Your task to perform on an android device: What's the weather going to be tomorrow? Image 0: 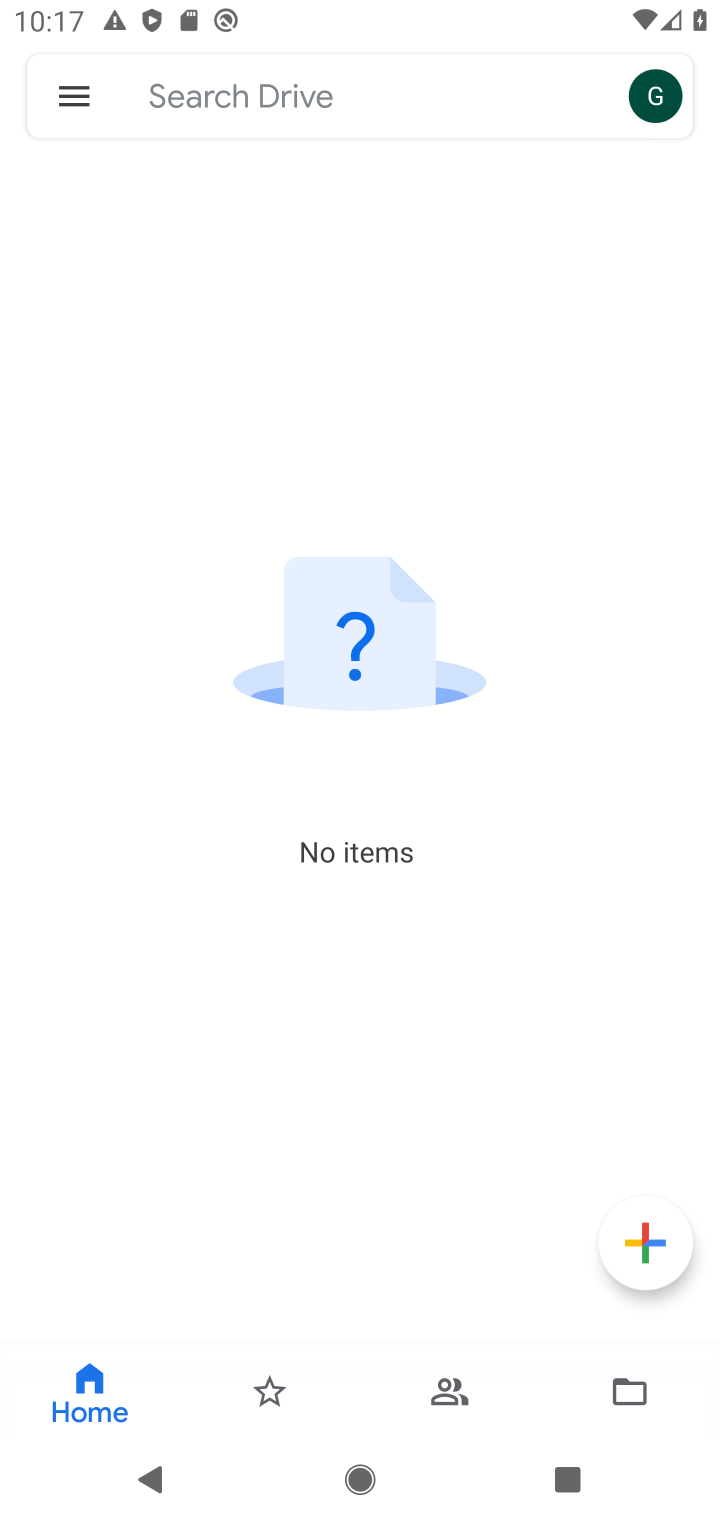
Step 0: drag from (352, 386) to (332, 105)
Your task to perform on an android device: What's the weather going to be tomorrow? Image 1: 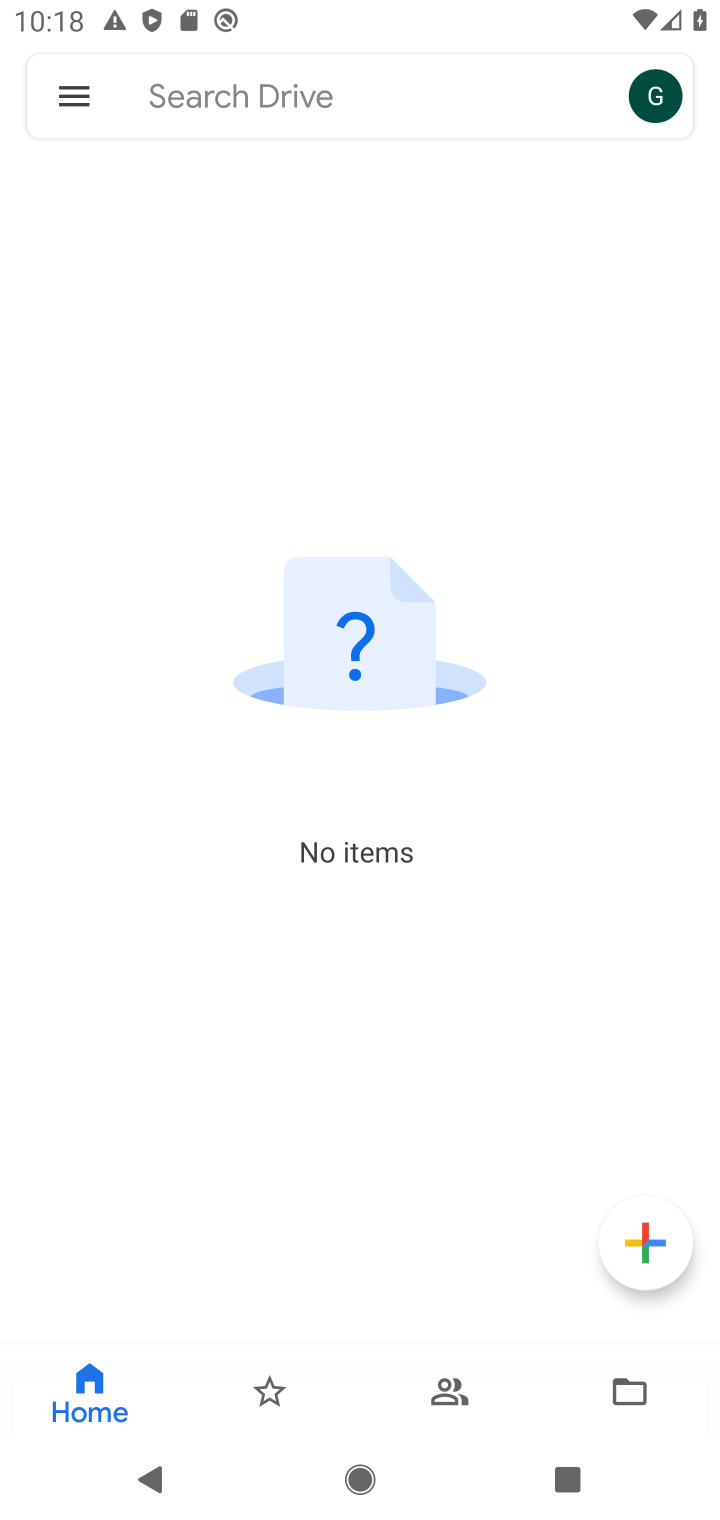
Step 1: press back button
Your task to perform on an android device: What's the weather going to be tomorrow? Image 2: 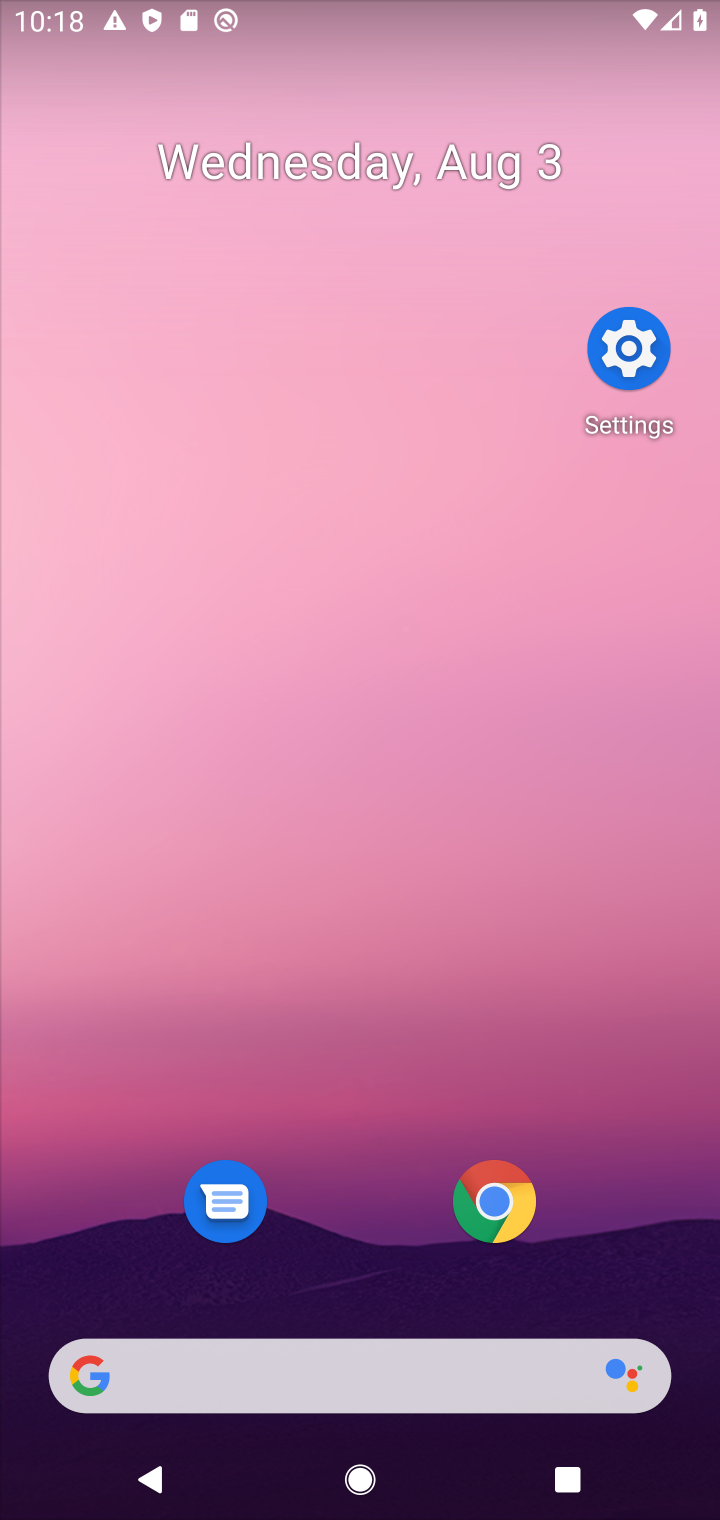
Step 2: drag from (439, 1090) to (213, 130)
Your task to perform on an android device: What's the weather going to be tomorrow? Image 3: 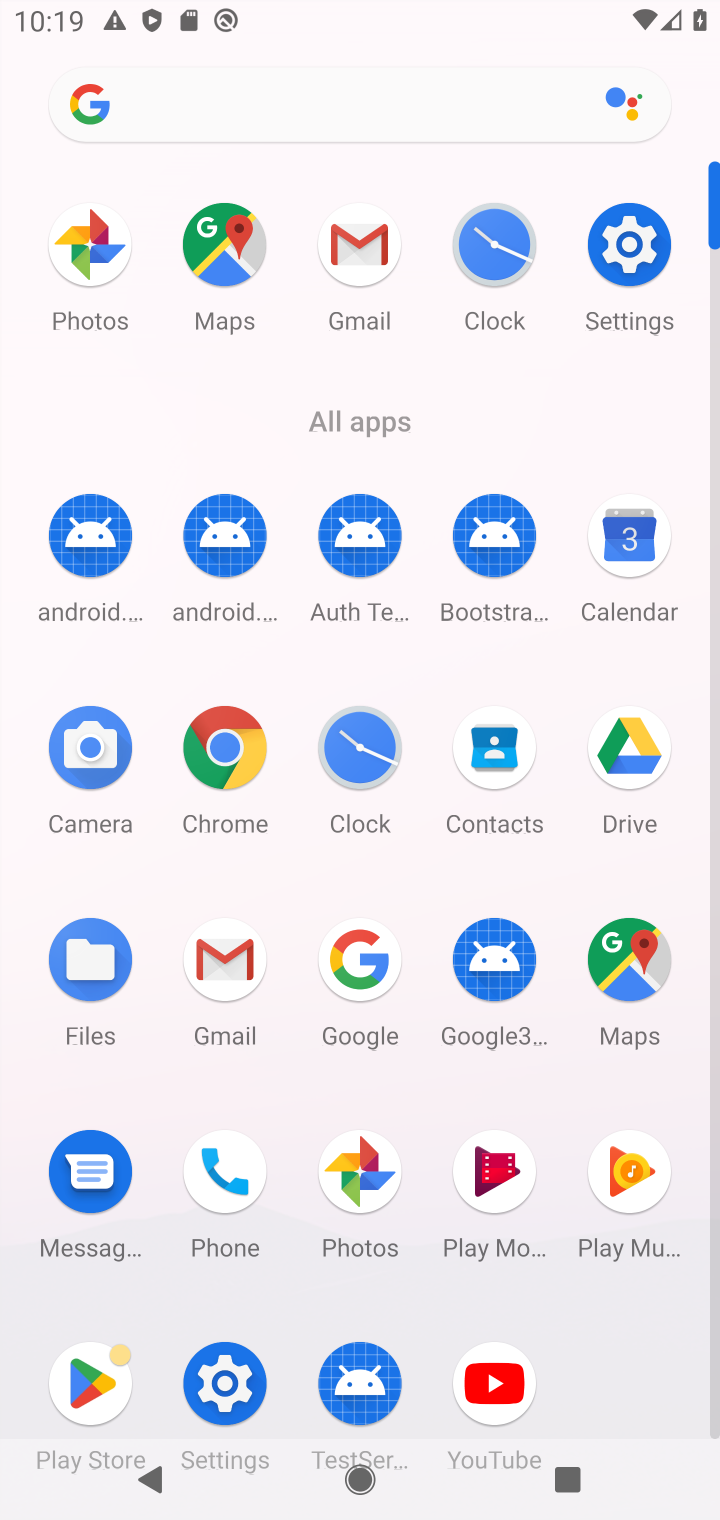
Step 3: click (229, 756)
Your task to perform on an android device: What's the weather going to be tomorrow? Image 4: 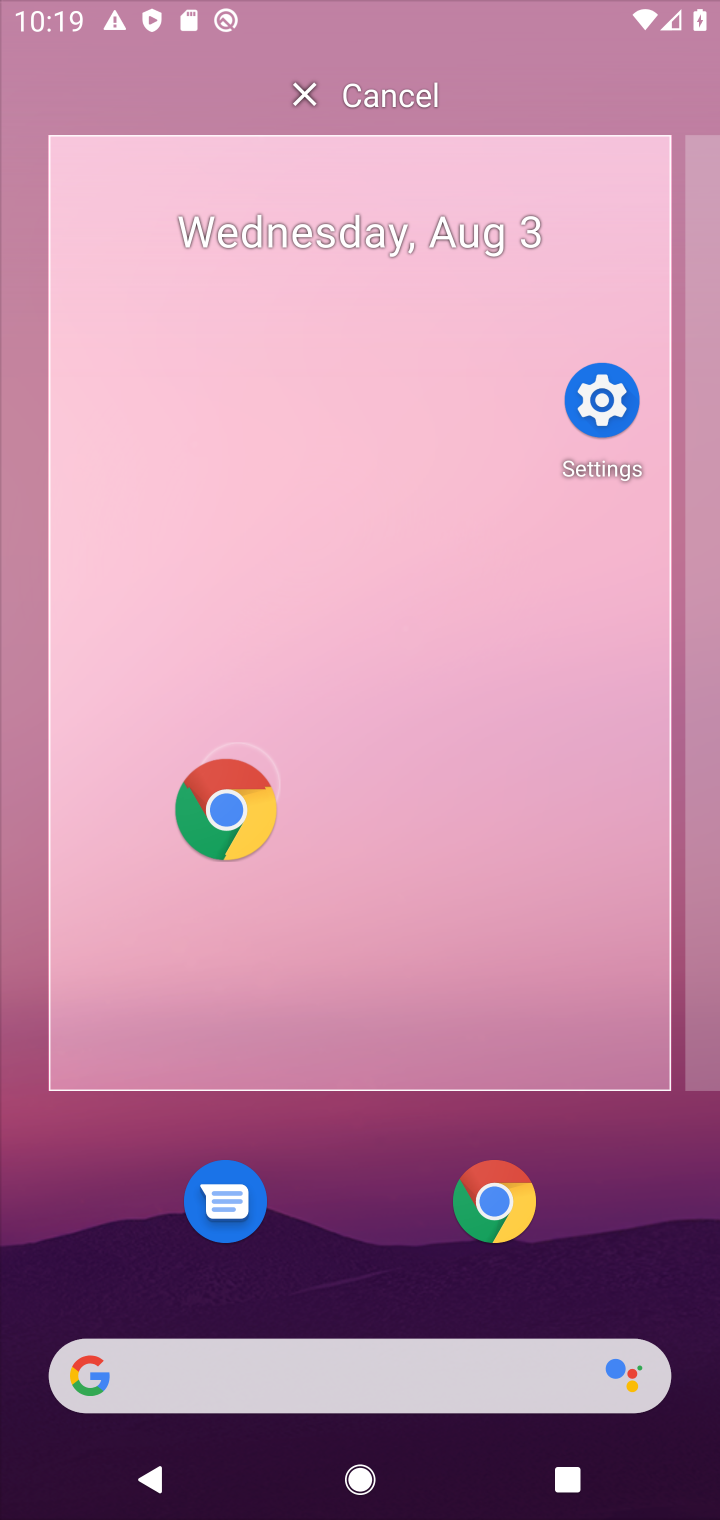
Step 4: drag from (480, 1208) to (314, 214)
Your task to perform on an android device: What's the weather going to be tomorrow? Image 5: 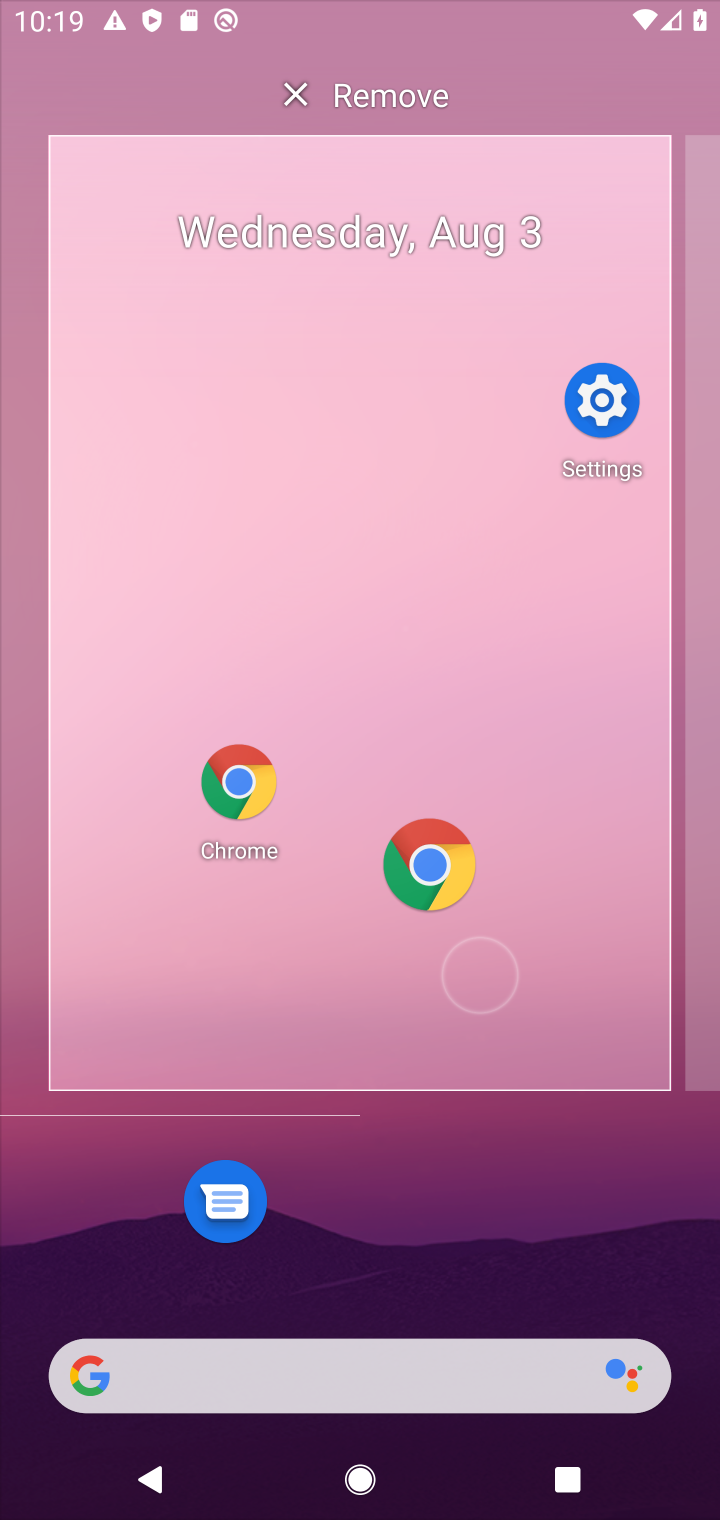
Step 5: drag from (376, 956) to (349, 570)
Your task to perform on an android device: What's the weather going to be tomorrow? Image 6: 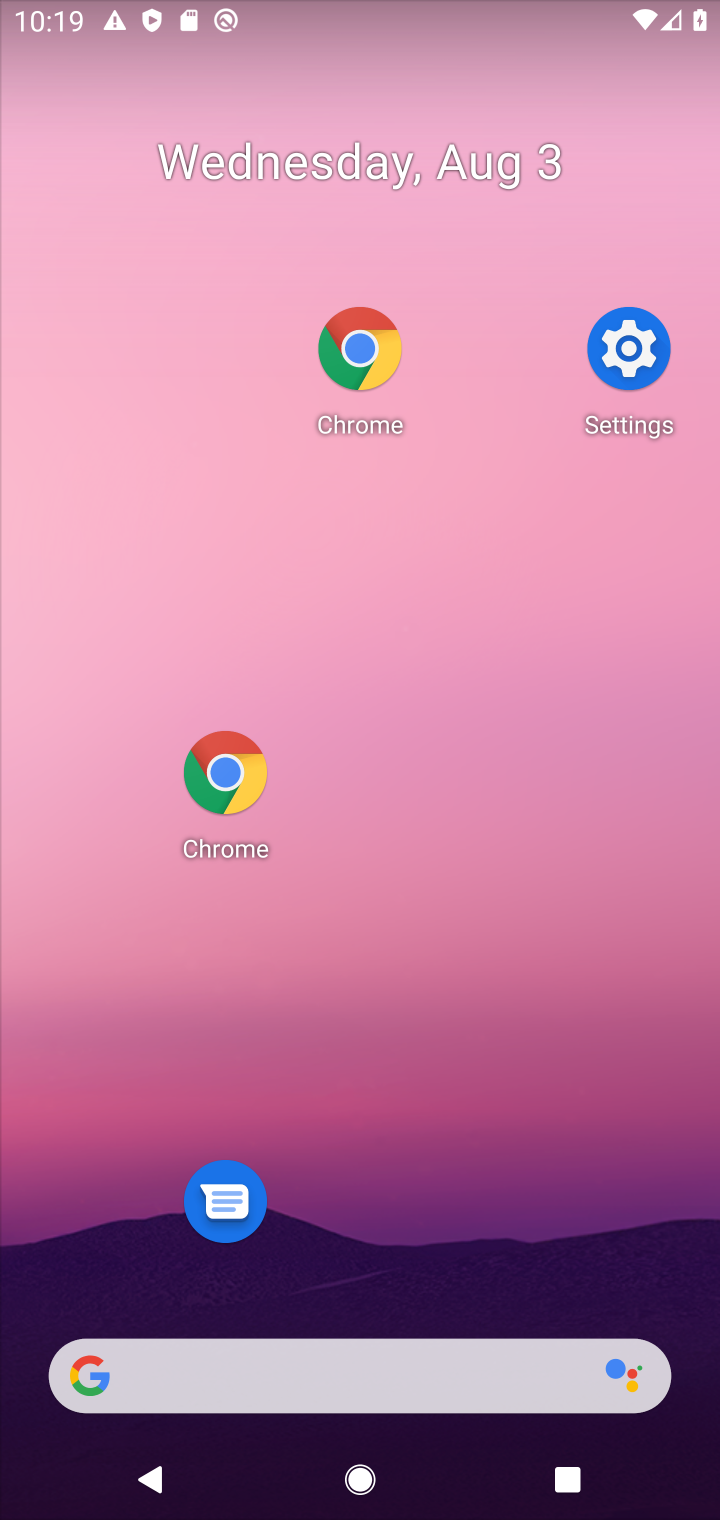
Step 6: click (229, 805)
Your task to perform on an android device: What's the weather going to be tomorrow? Image 7: 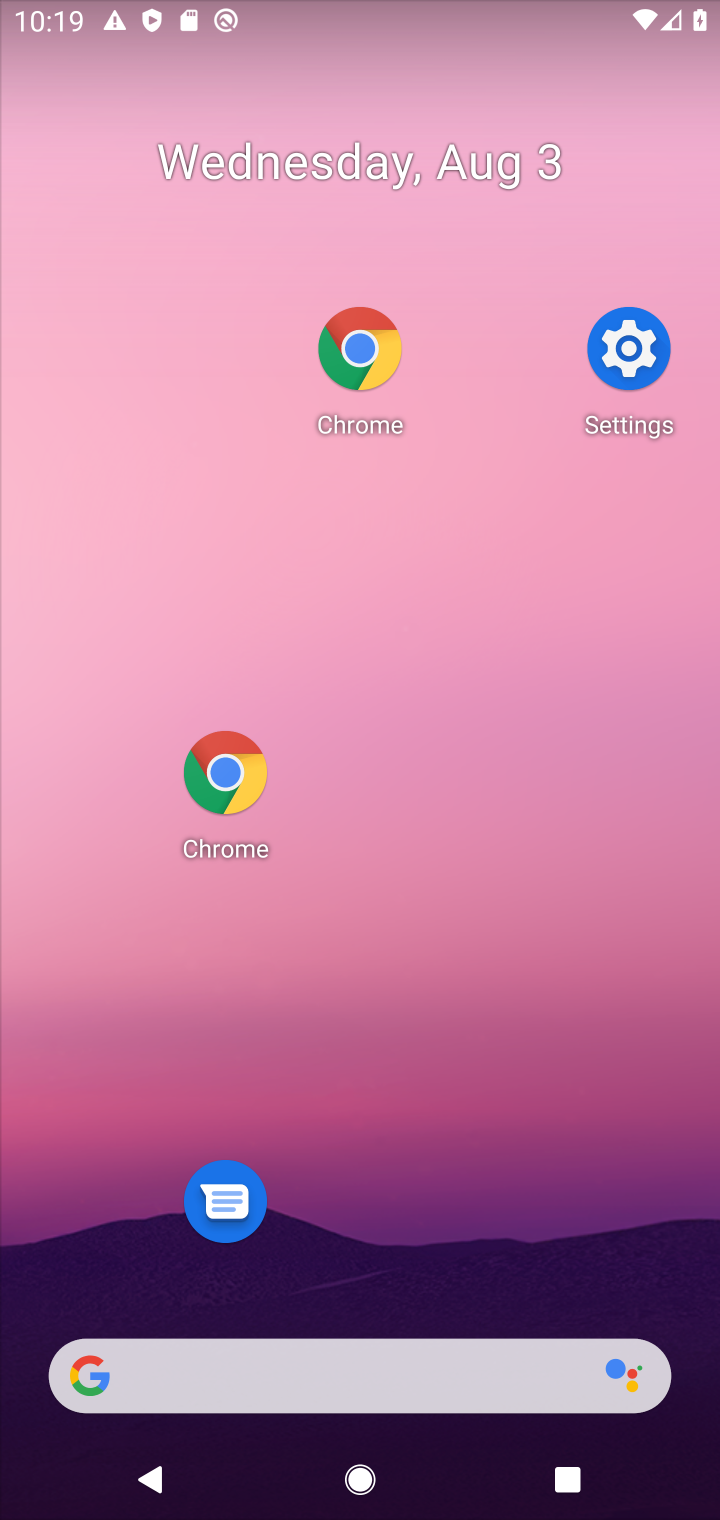
Step 7: drag from (317, 1251) to (261, 423)
Your task to perform on an android device: What's the weather going to be tomorrow? Image 8: 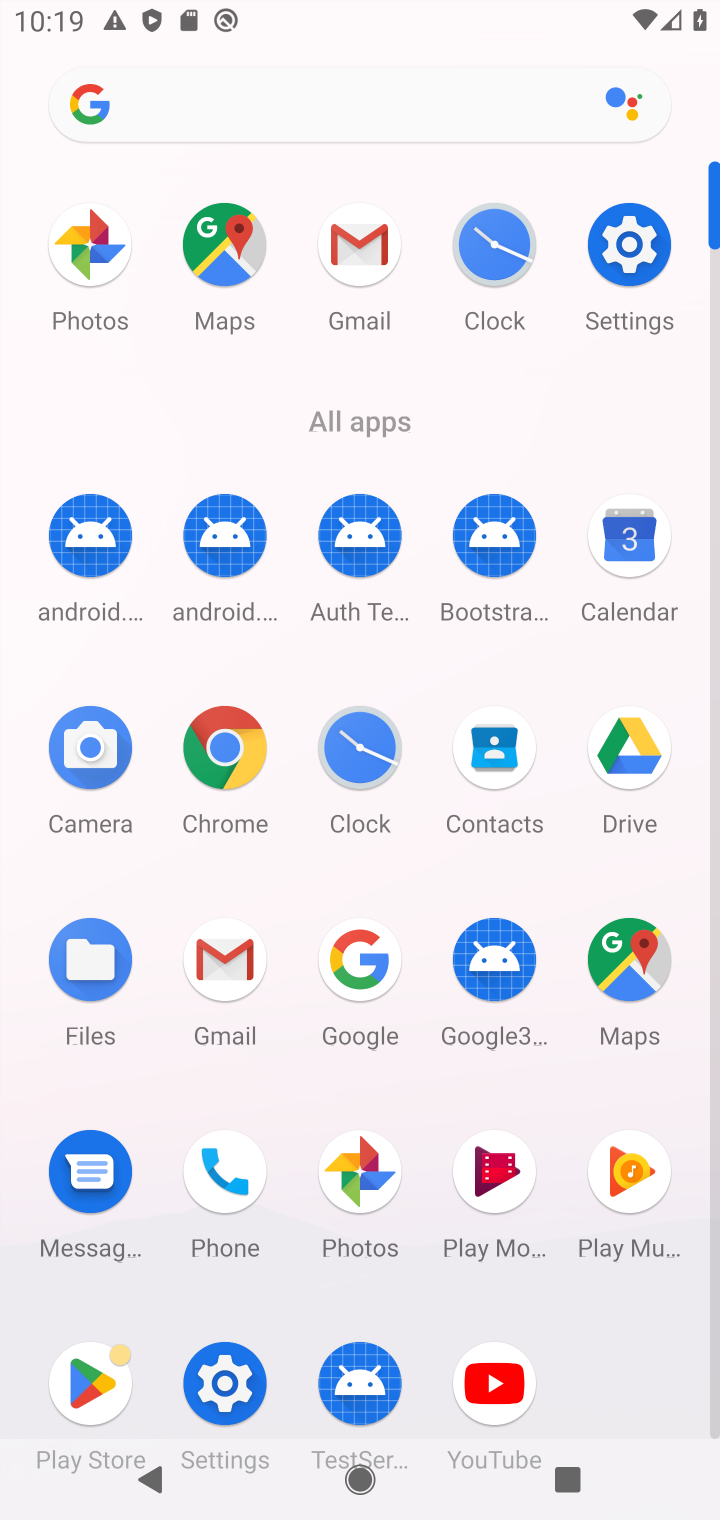
Step 8: click (224, 727)
Your task to perform on an android device: What's the weather going to be tomorrow? Image 9: 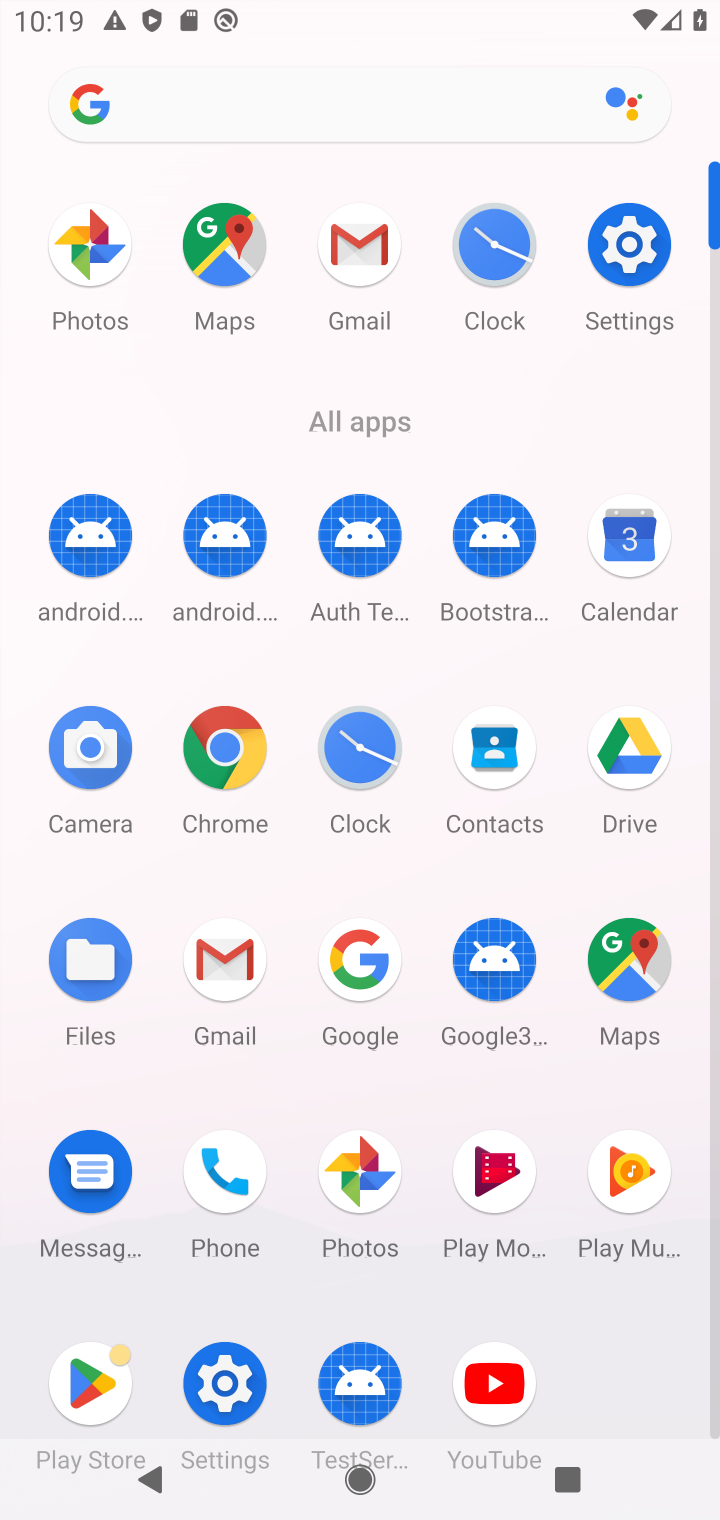
Step 9: click (224, 727)
Your task to perform on an android device: What's the weather going to be tomorrow? Image 10: 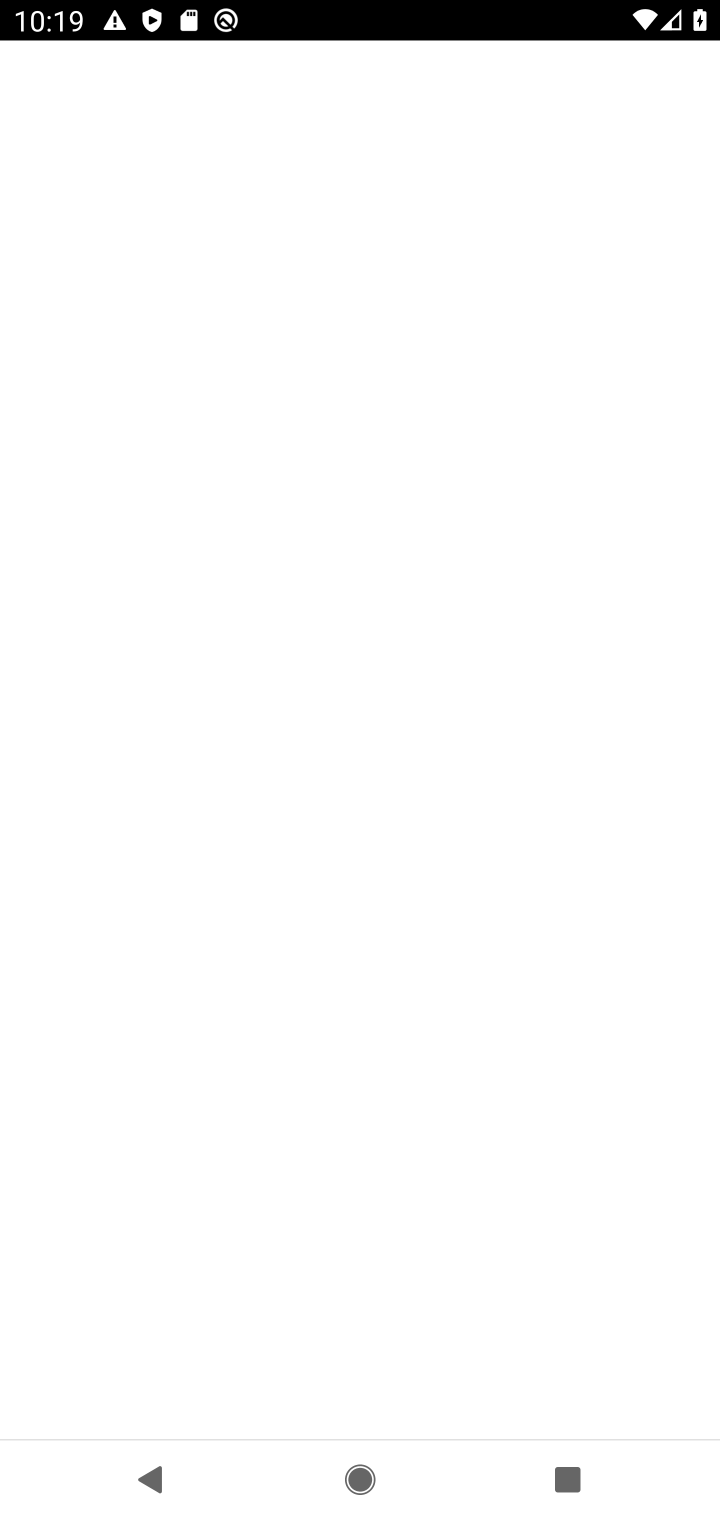
Step 10: click (182, 761)
Your task to perform on an android device: What's the weather going to be tomorrow? Image 11: 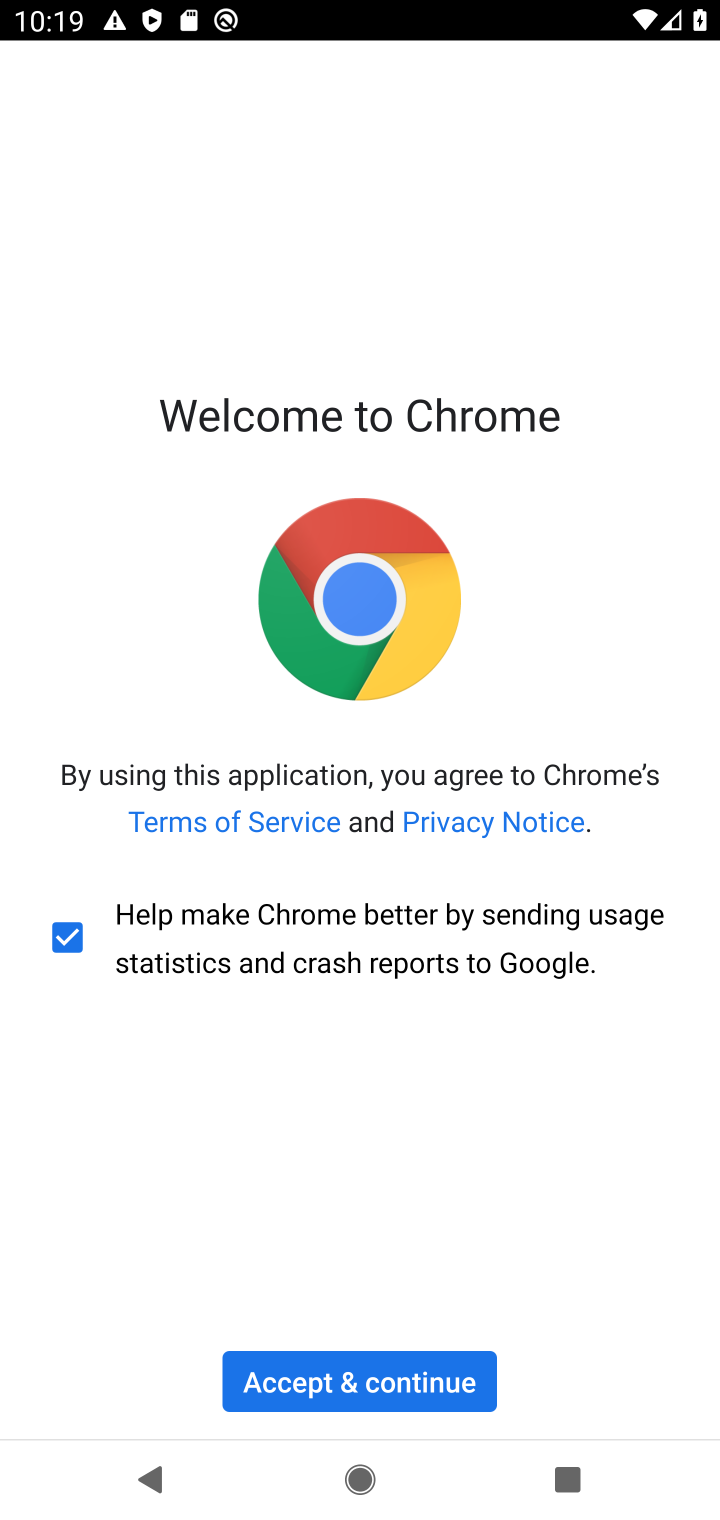
Step 11: click (372, 1357)
Your task to perform on an android device: What's the weather going to be tomorrow? Image 12: 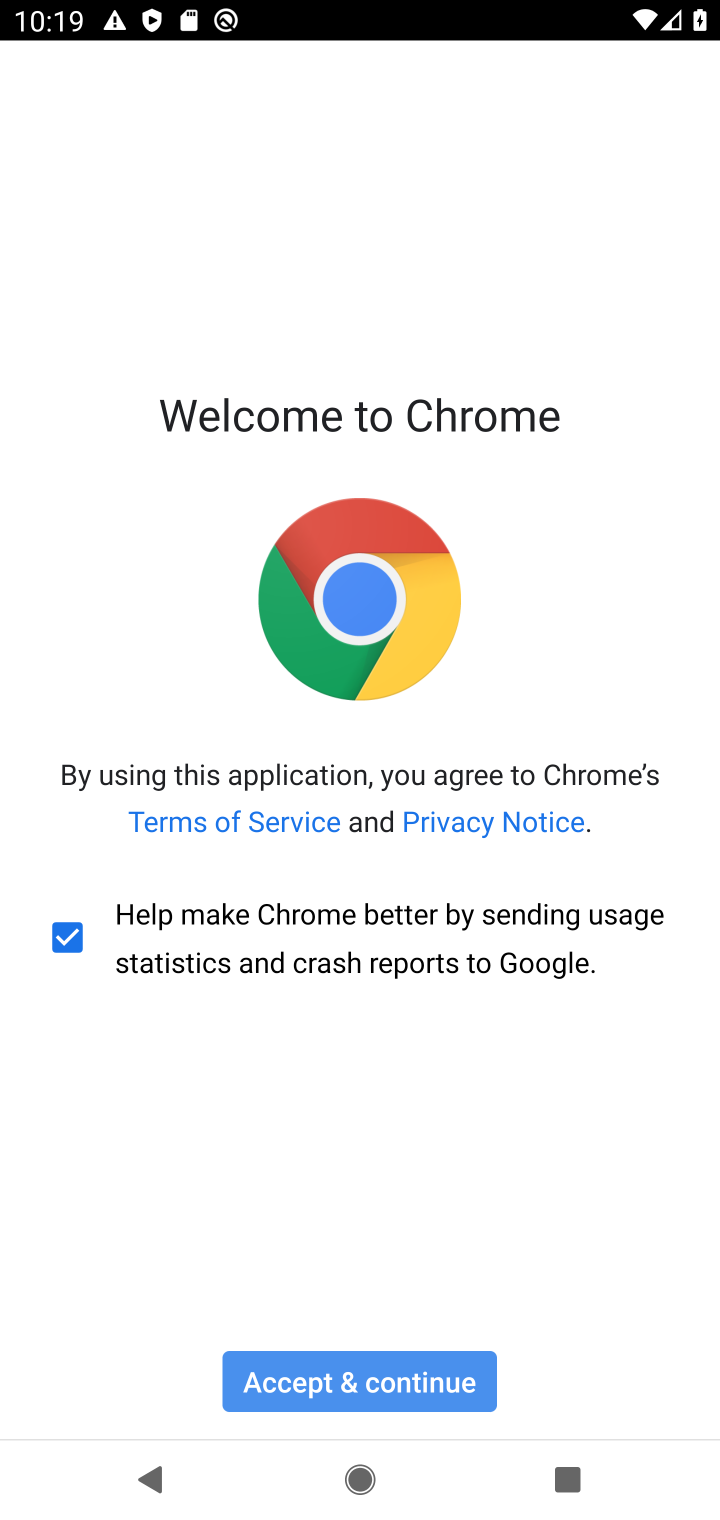
Step 12: click (394, 1366)
Your task to perform on an android device: What's the weather going to be tomorrow? Image 13: 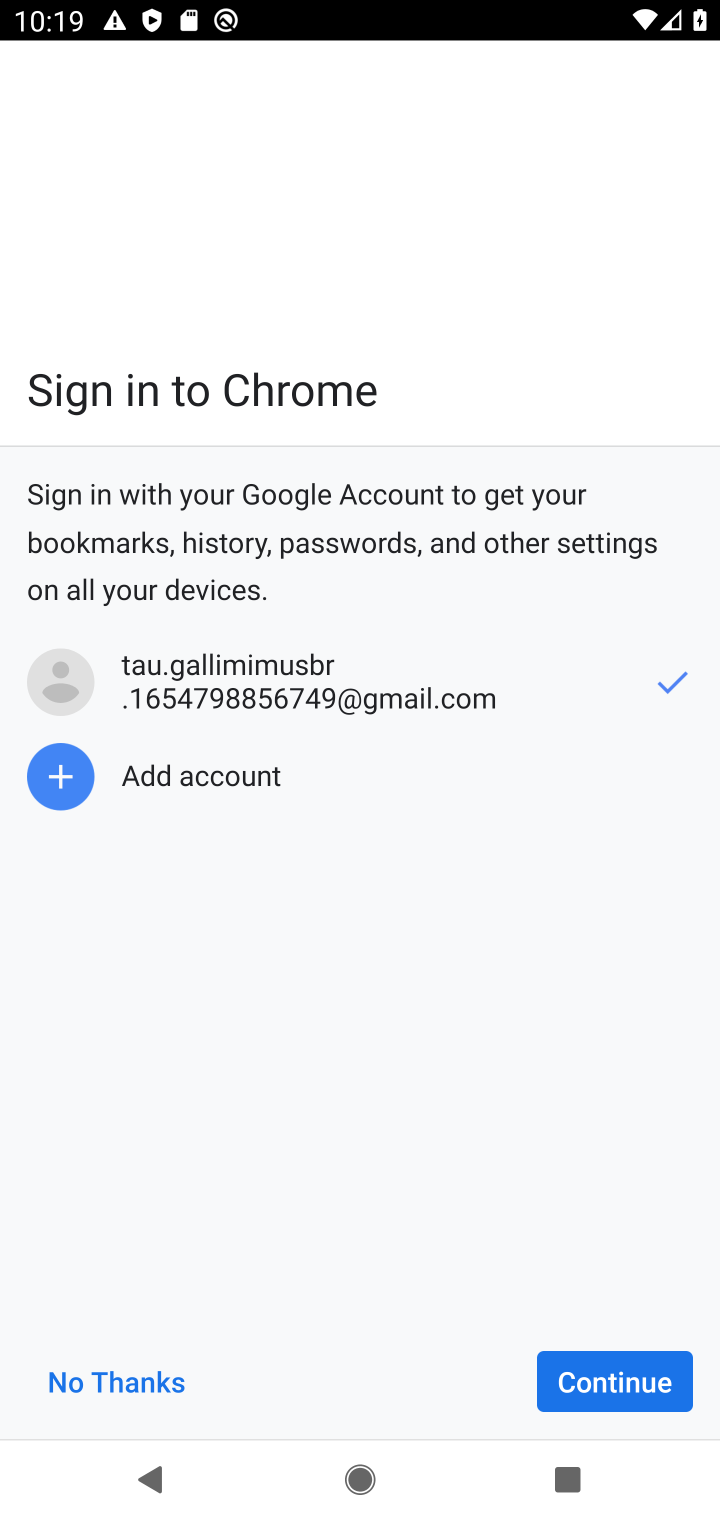
Step 13: click (435, 1399)
Your task to perform on an android device: What's the weather going to be tomorrow? Image 14: 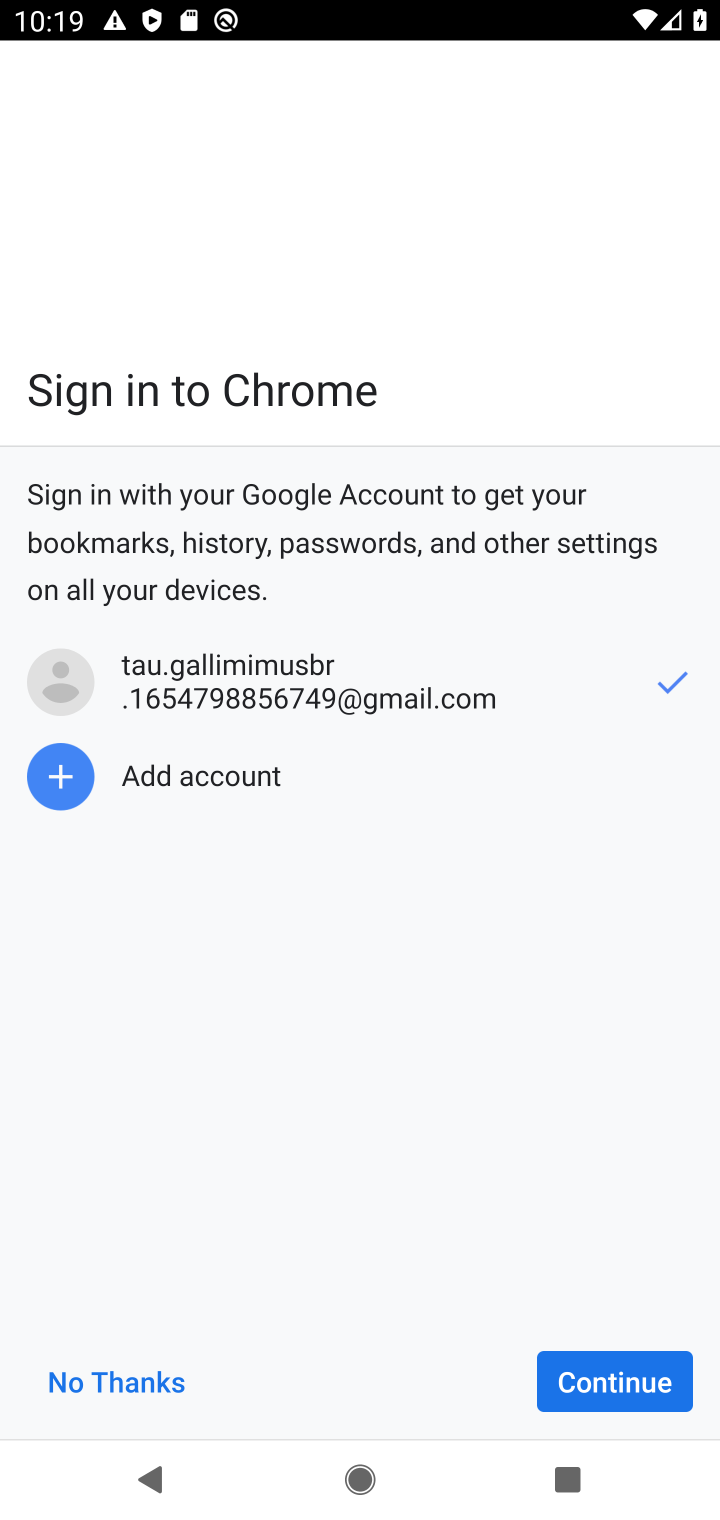
Step 14: click (439, 1373)
Your task to perform on an android device: What's the weather going to be tomorrow? Image 15: 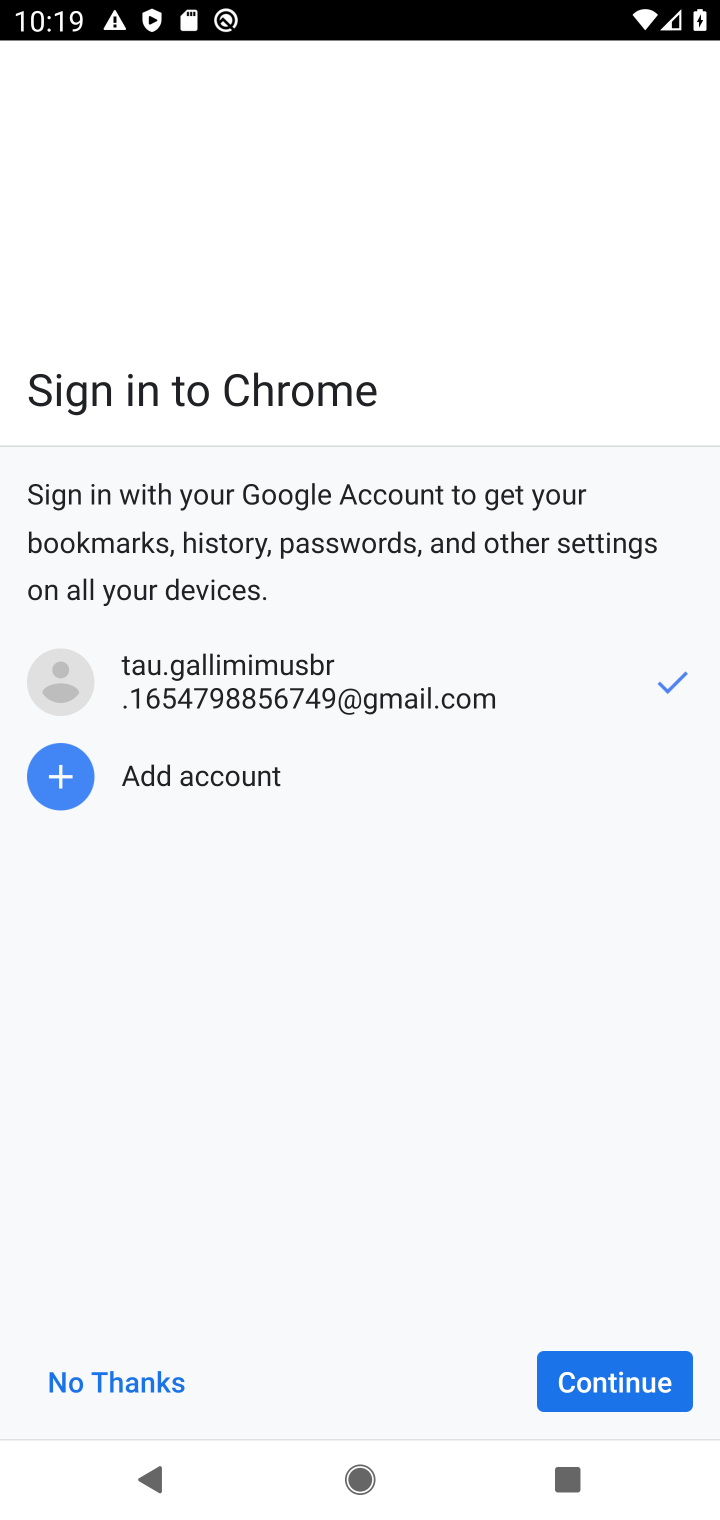
Step 15: click (443, 1356)
Your task to perform on an android device: What's the weather going to be tomorrow? Image 16: 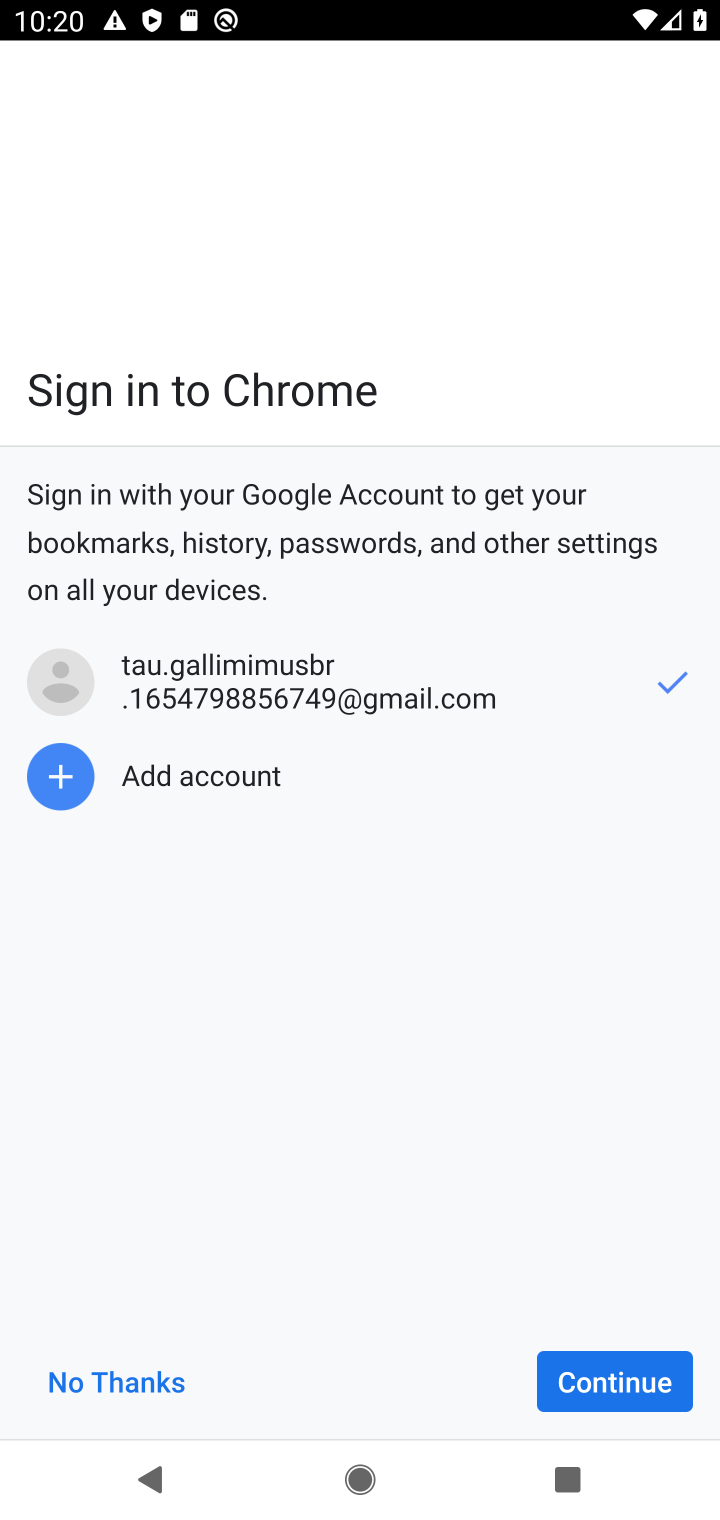
Step 16: click (121, 1379)
Your task to perform on an android device: What's the weather going to be tomorrow? Image 17: 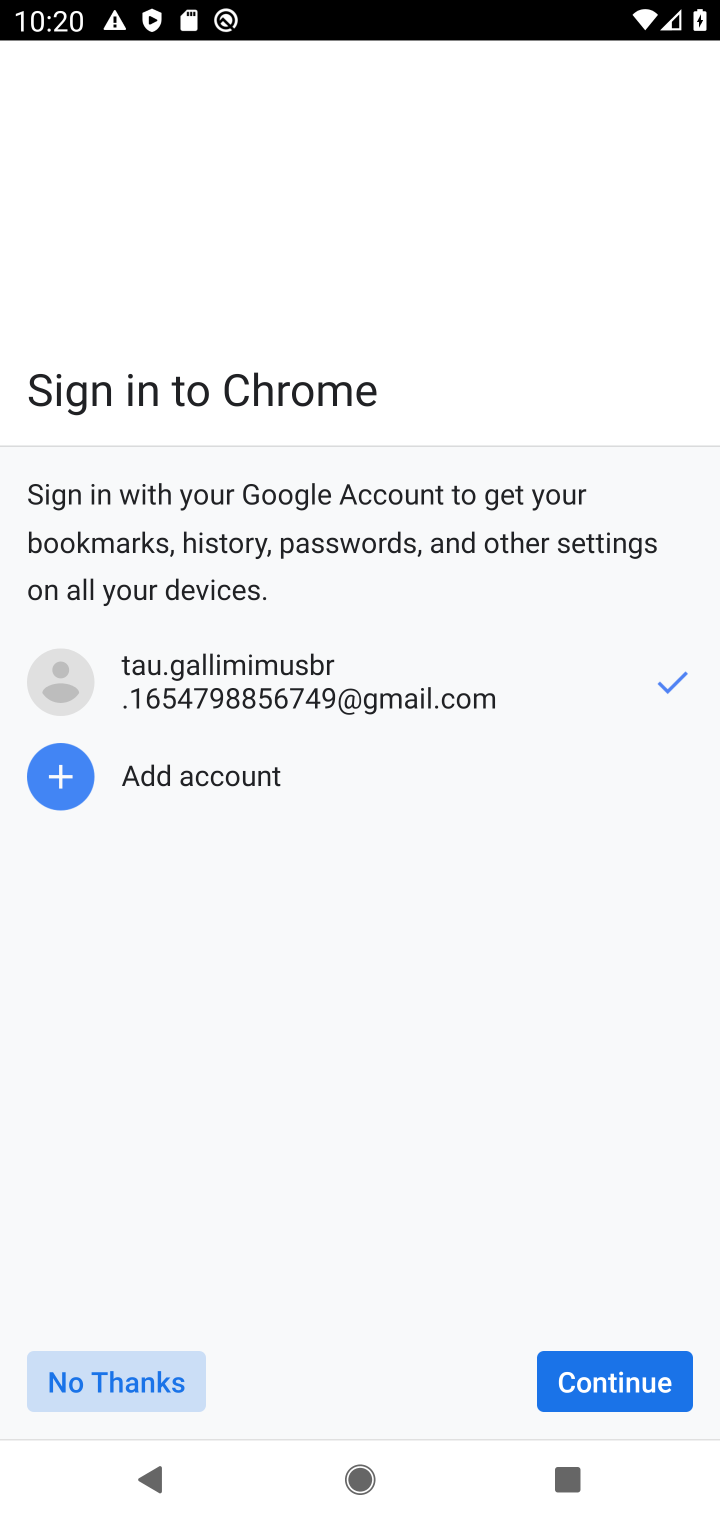
Step 17: click (125, 1379)
Your task to perform on an android device: What's the weather going to be tomorrow? Image 18: 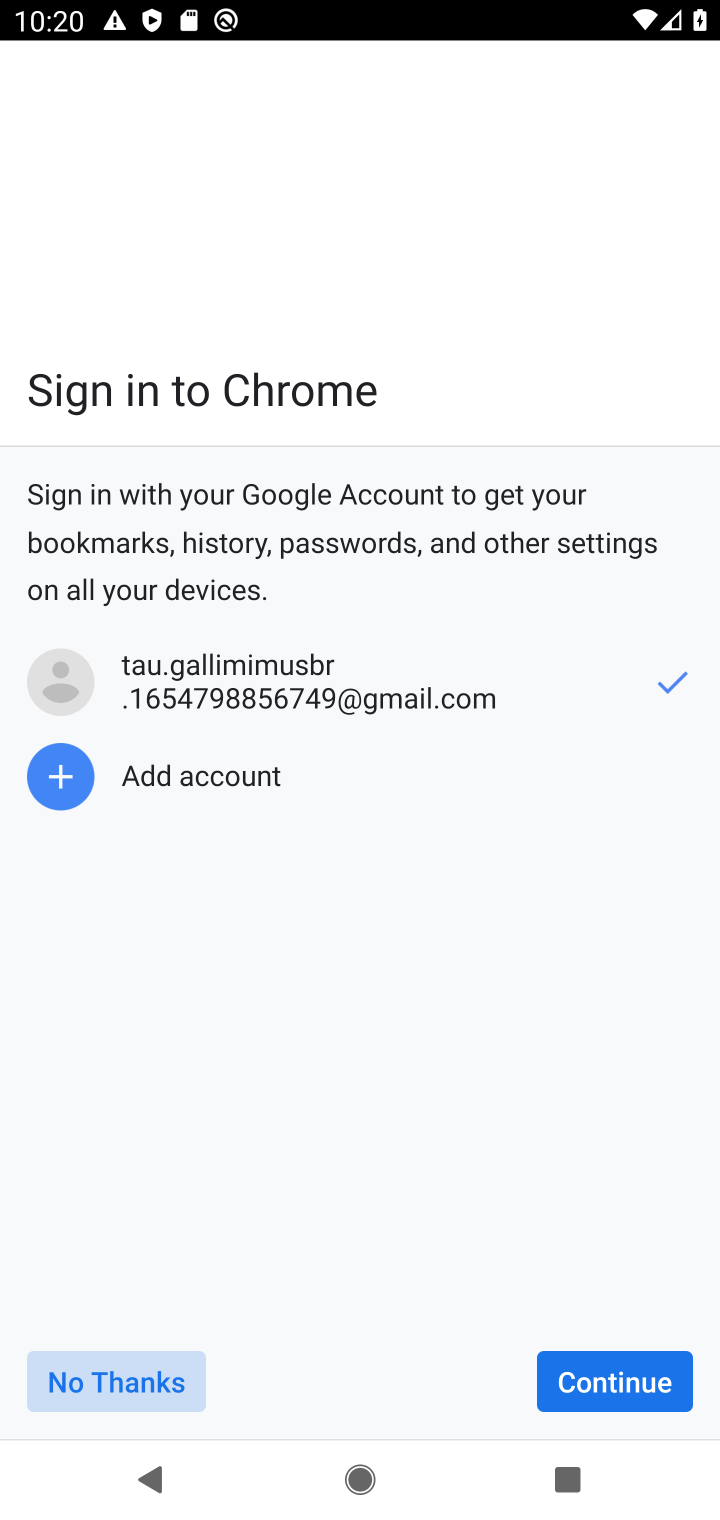
Step 18: click (138, 1370)
Your task to perform on an android device: What's the weather going to be tomorrow? Image 19: 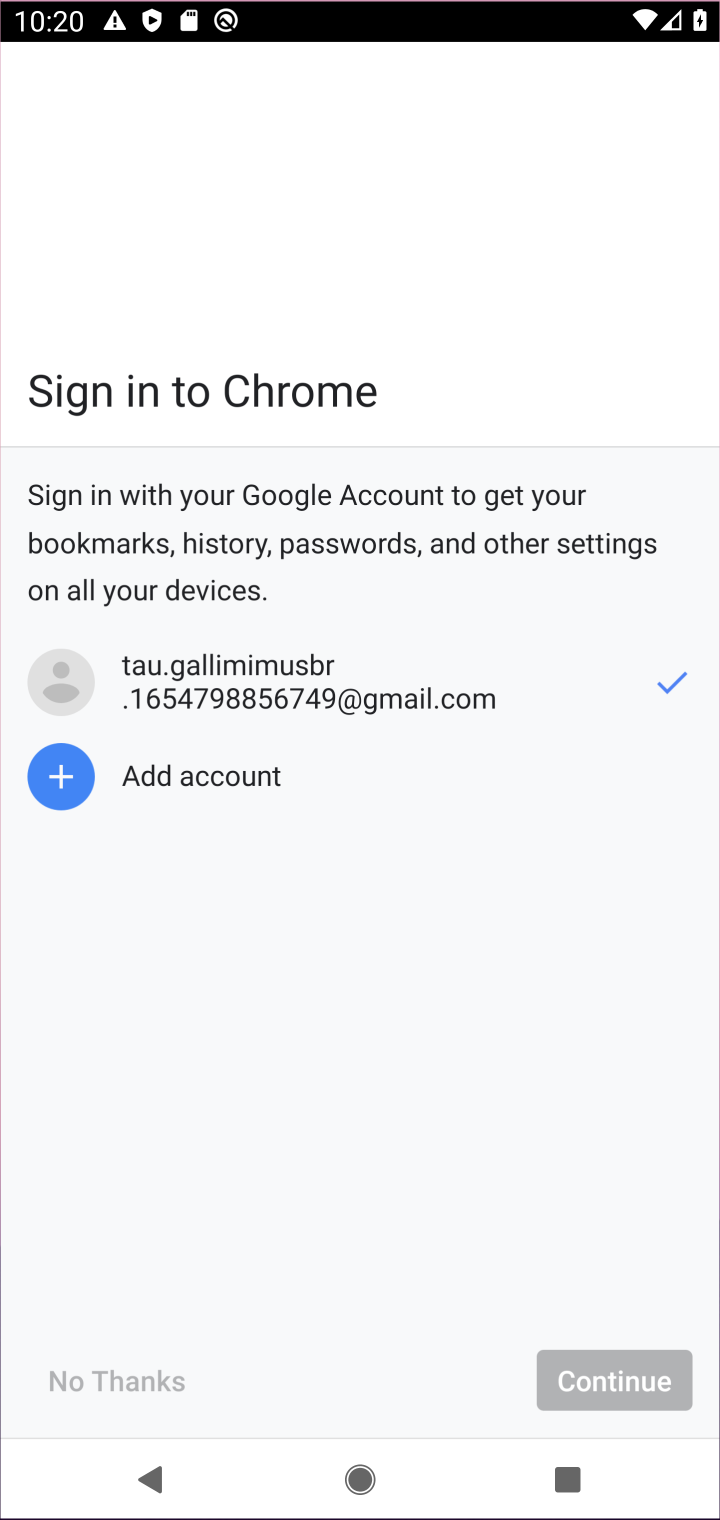
Step 19: click (138, 1370)
Your task to perform on an android device: What's the weather going to be tomorrow? Image 20: 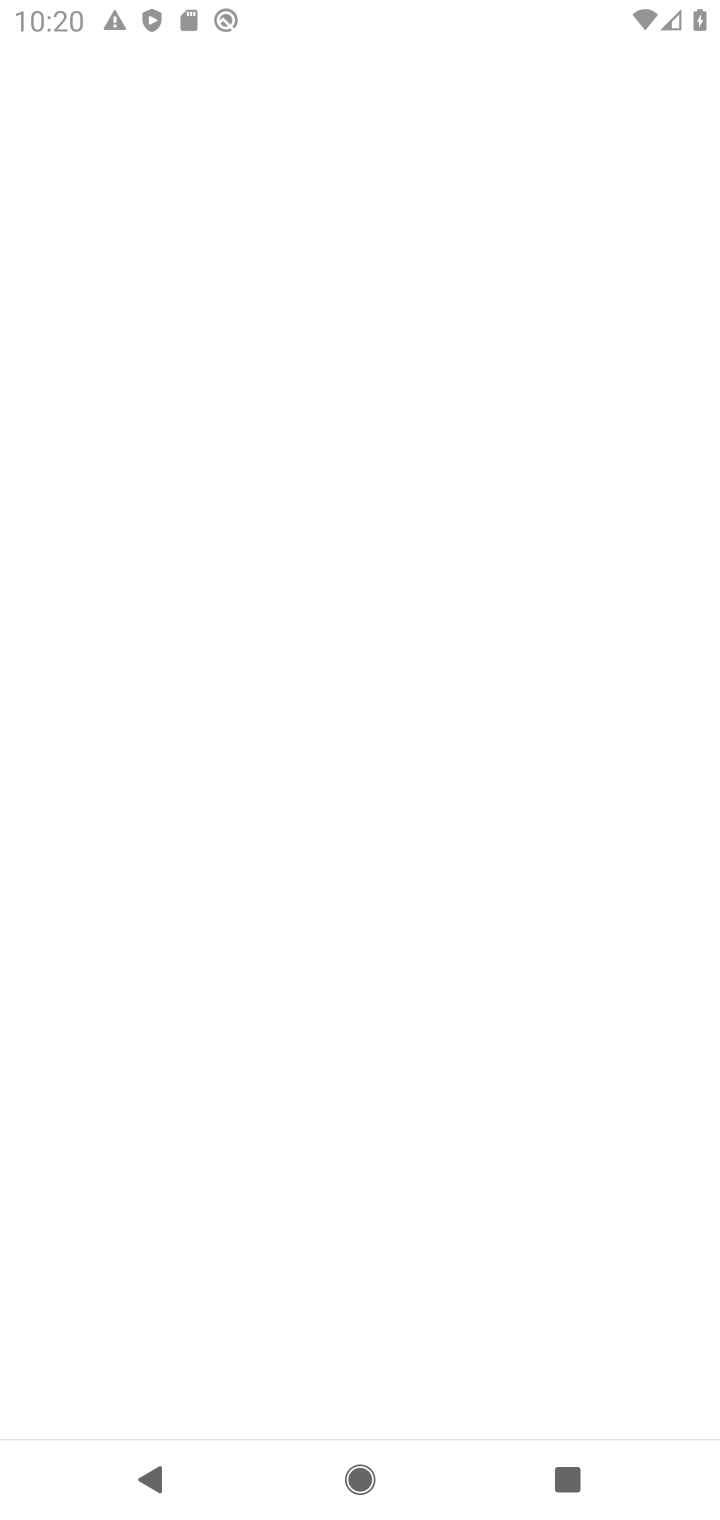
Step 20: click (138, 1370)
Your task to perform on an android device: What's the weather going to be tomorrow? Image 21: 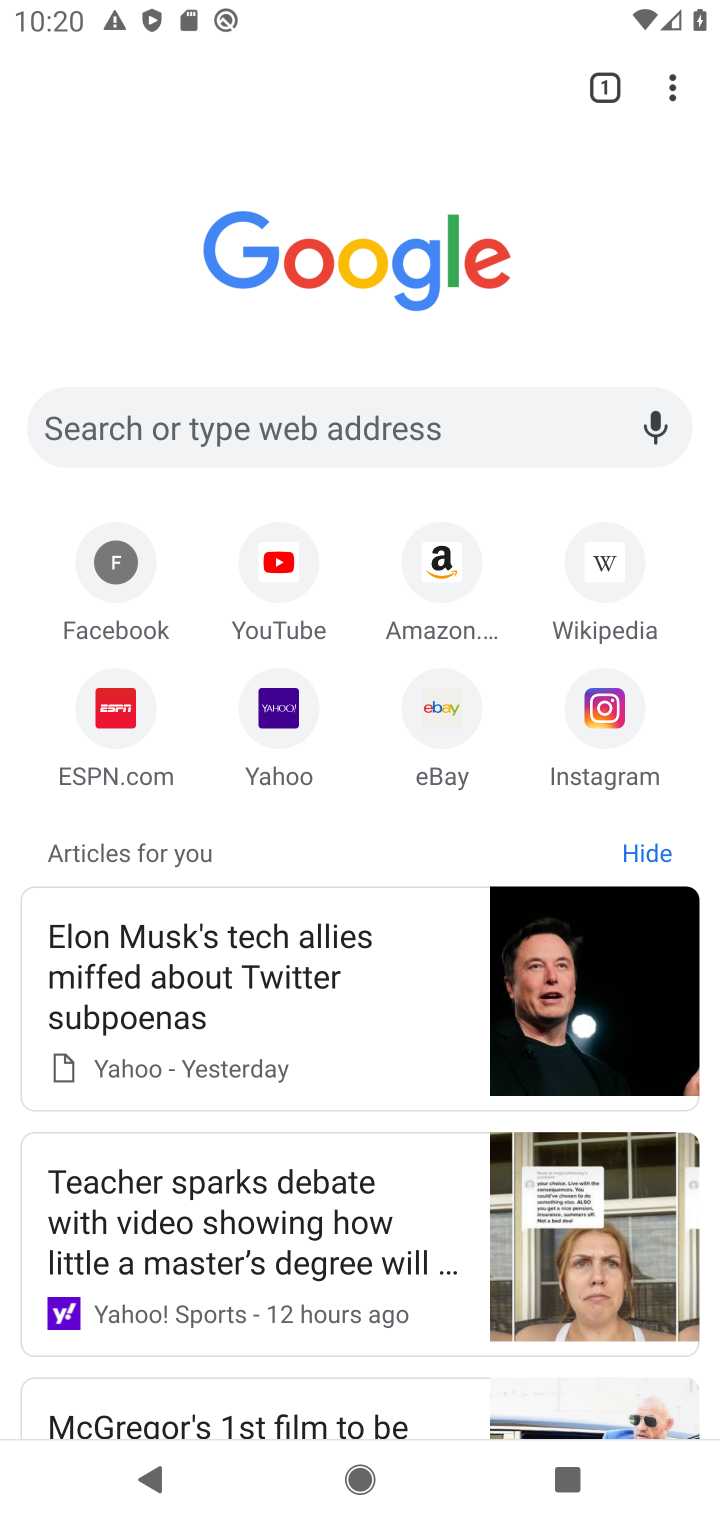
Step 21: click (147, 425)
Your task to perform on an android device: What's the weather going to be tomorrow? Image 22: 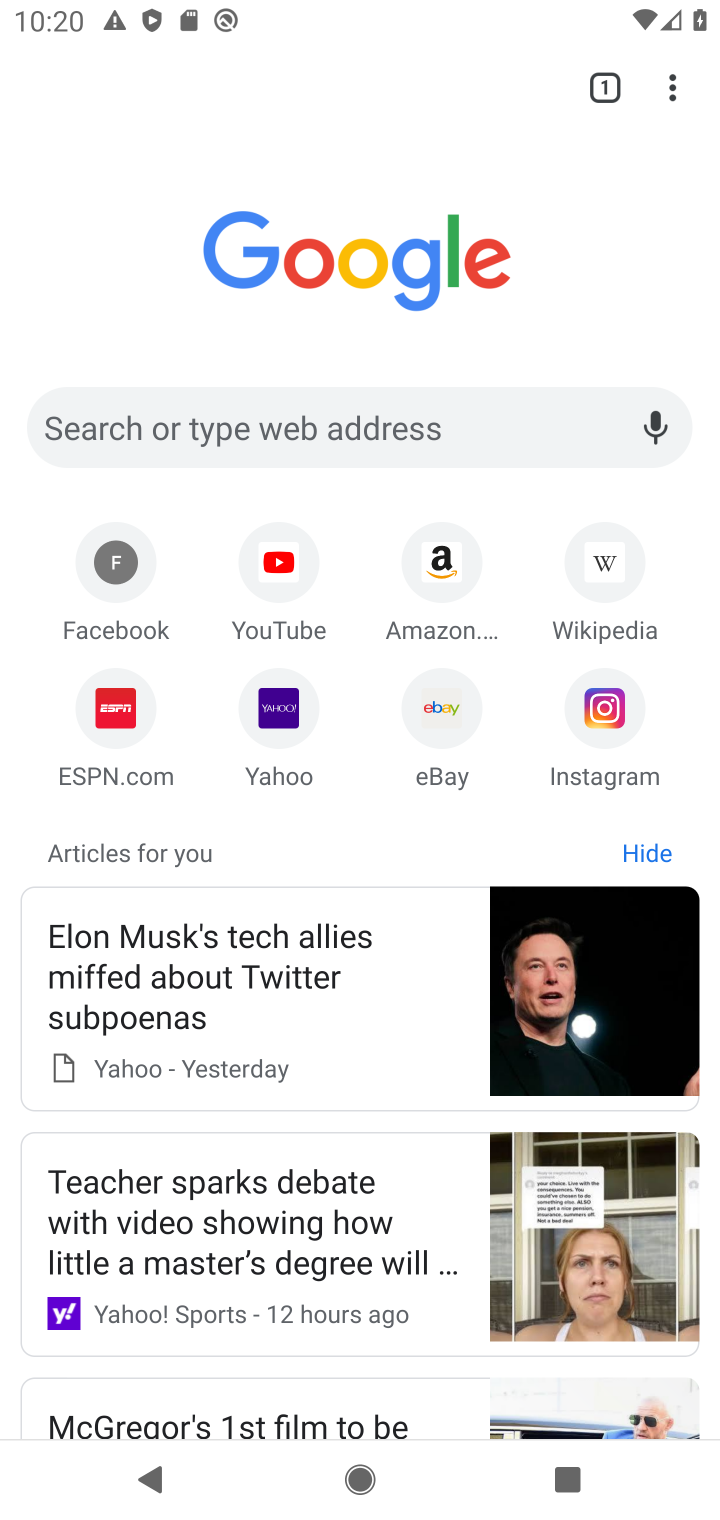
Step 22: click (77, 426)
Your task to perform on an android device: What's the weather going to be tomorrow? Image 23: 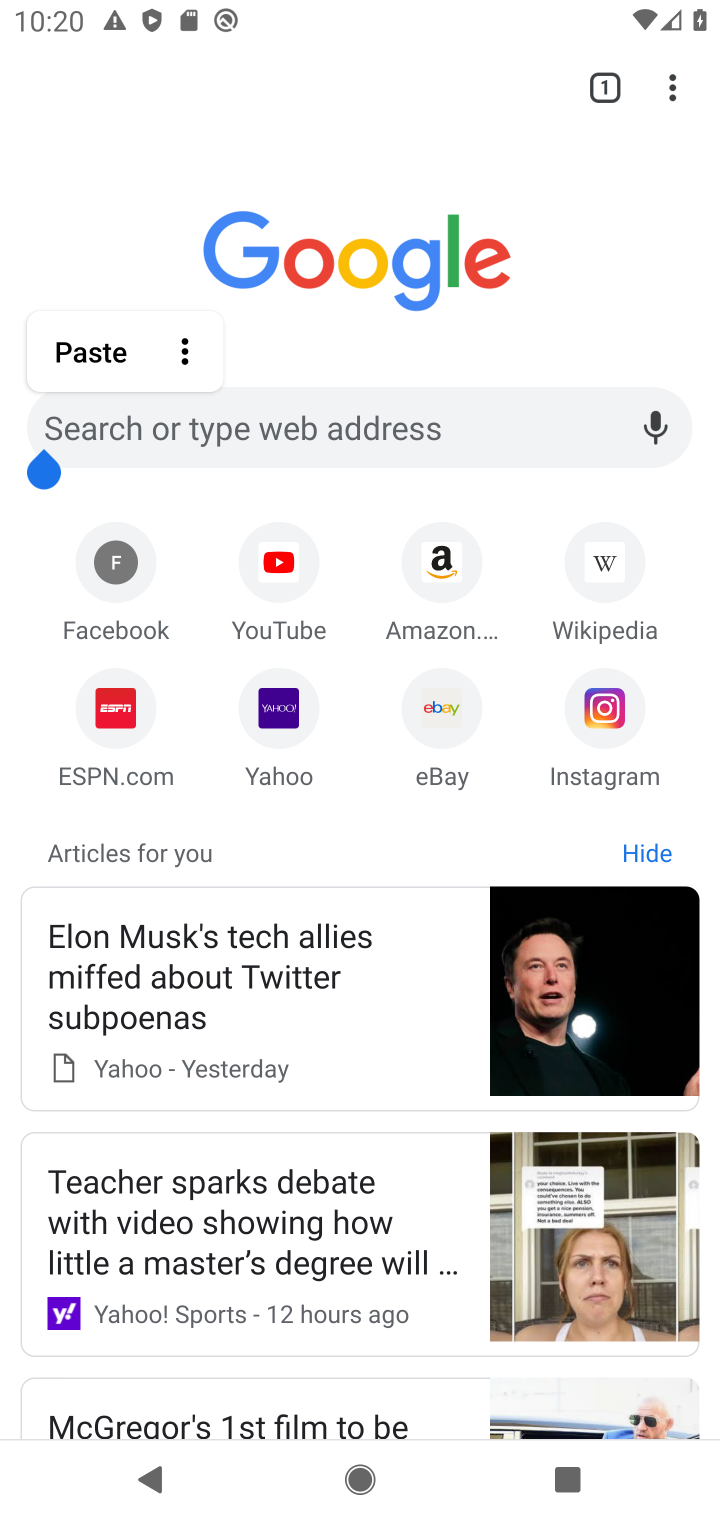
Step 23: click (168, 423)
Your task to perform on an android device: What's the weather going to be tomorrow? Image 24: 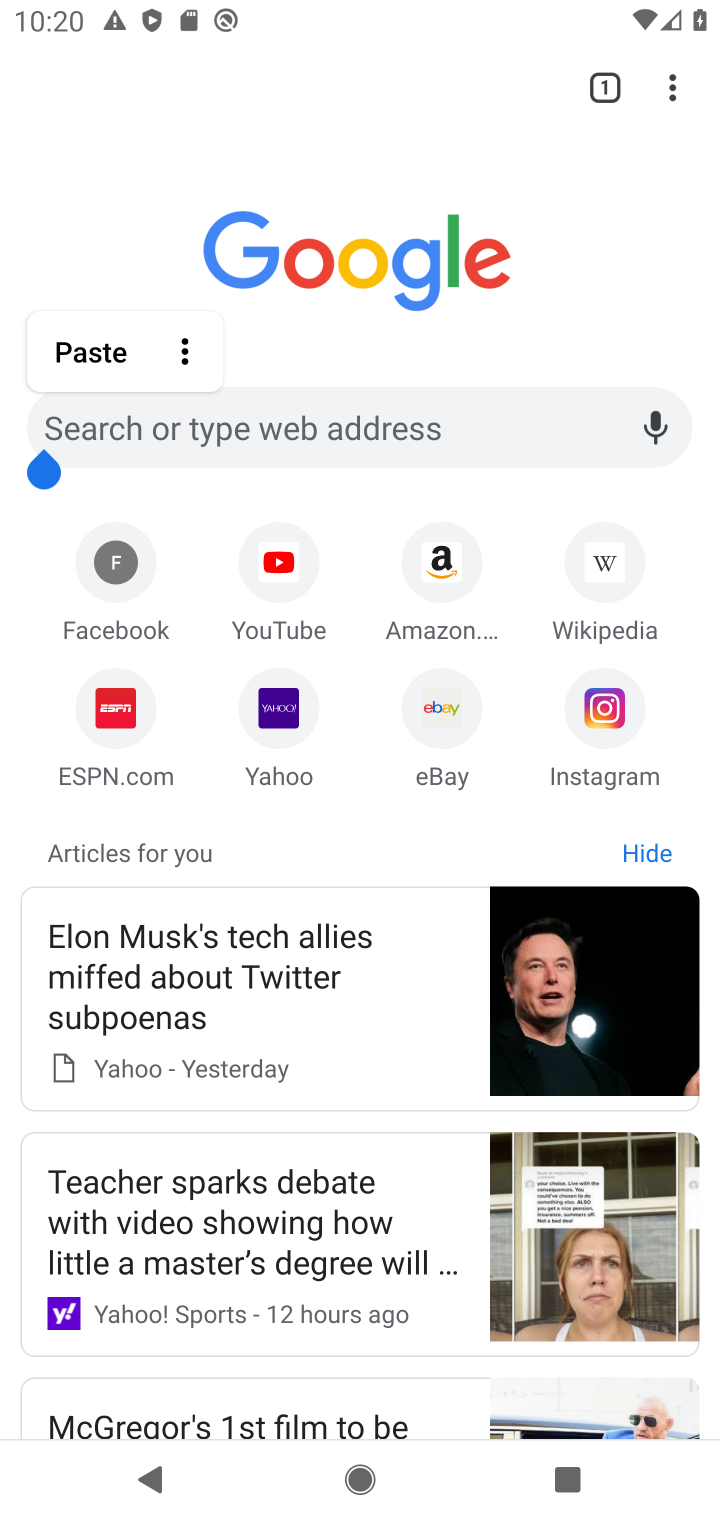
Step 24: type "wea"
Your task to perform on an android device: What's the weather going to be tomorrow? Image 25: 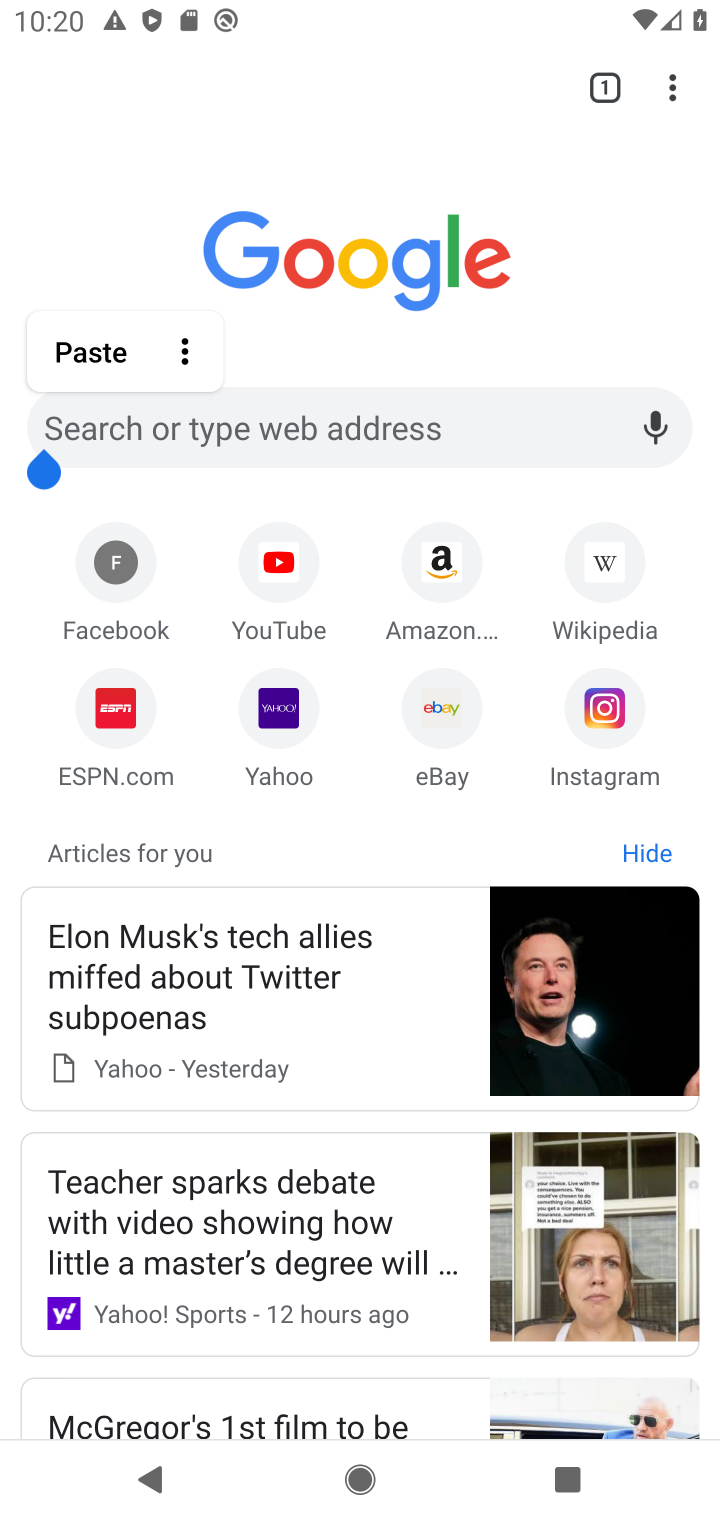
Step 25: click (165, 422)
Your task to perform on an android device: What's the weather going to be tomorrow? Image 26: 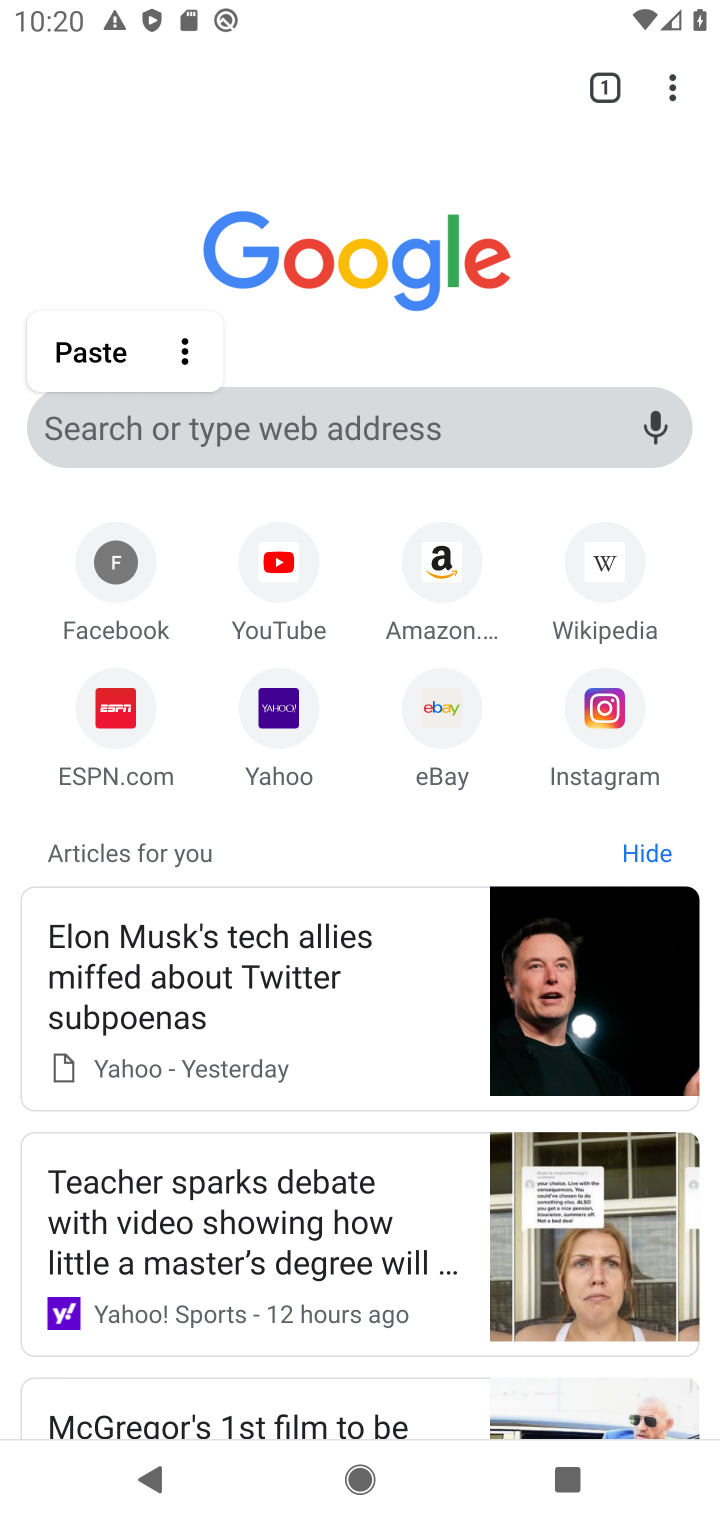
Step 26: task complete